Your task to perform on an android device: move a message to another label in the gmail app Image 0: 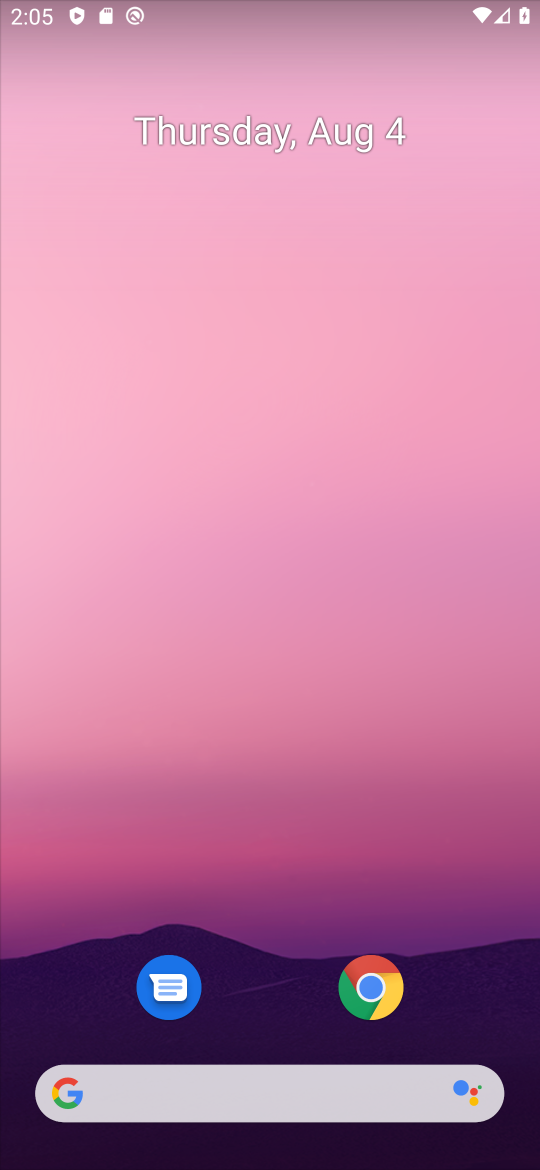
Step 0: drag from (441, 990) to (200, 73)
Your task to perform on an android device: move a message to another label in the gmail app Image 1: 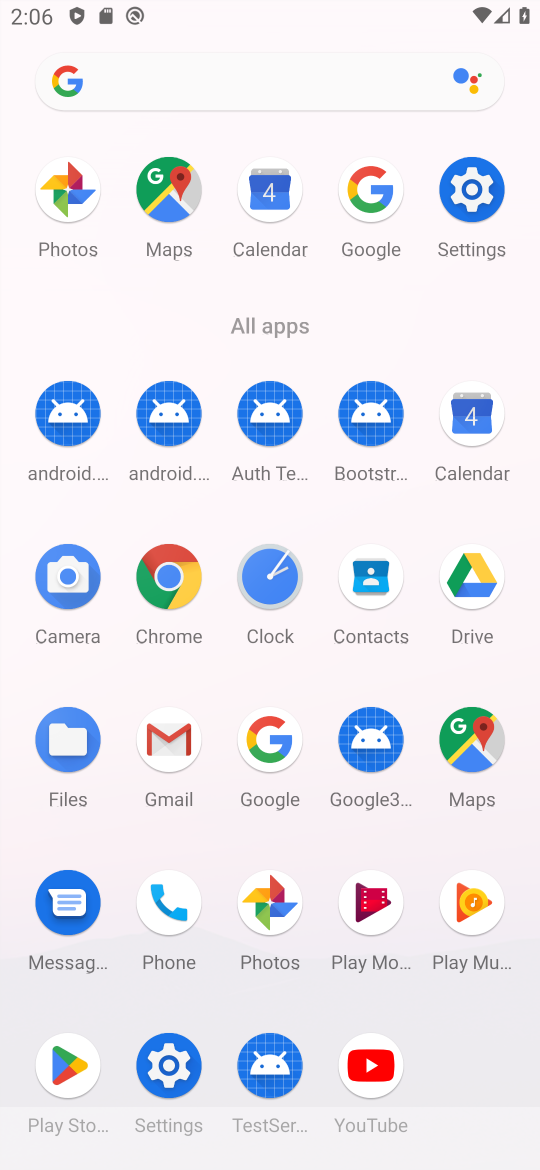
Step 1: click (173, 735)
Your task to perform on an android device: move a message to another label in the gmail app Image 2: 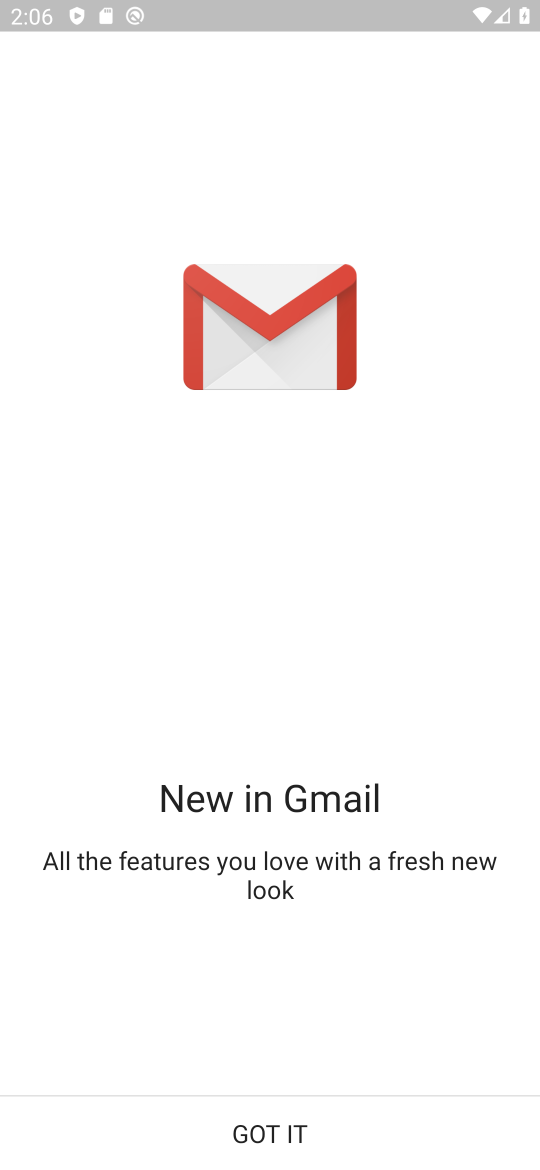
Step 2: click (277, 1122)
Your task to perform on an android device: move a message to another label in the gmail app Image 3: 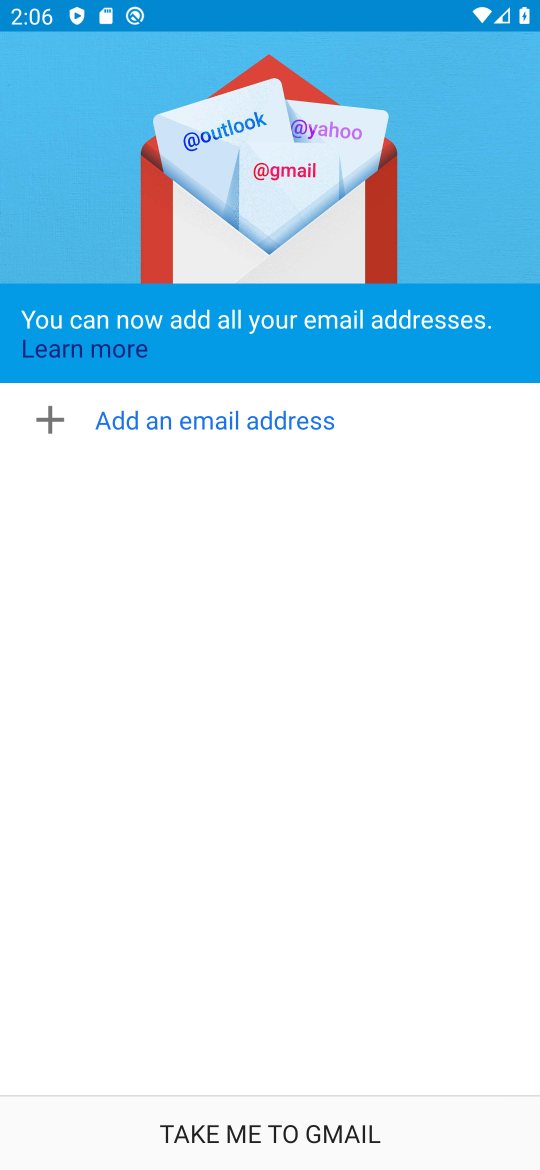
Step 3: click (283, 1121)
Your task to perform on an android device: move a message to another label in the gmail app Image 4: 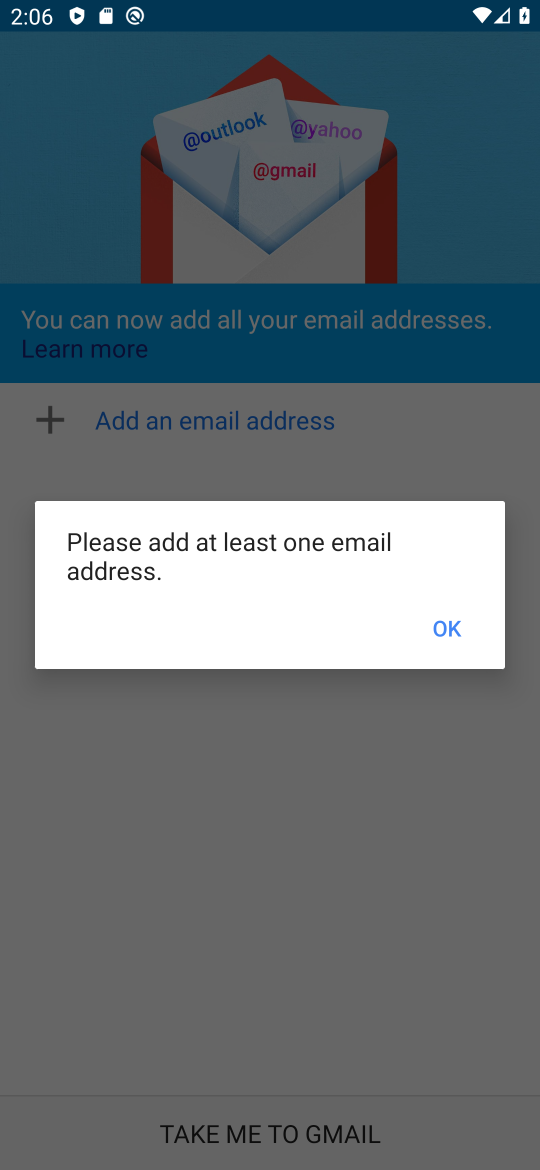
Step 4: task complete